Your task to perform on an android device: turn off priority inbox in the gmail app Image 0: 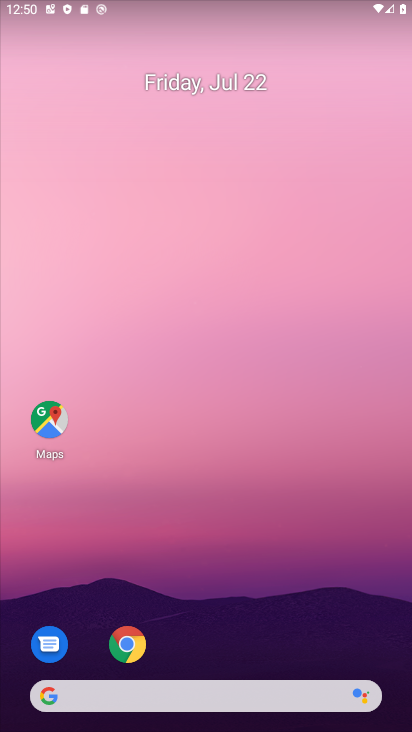
Step 0: press home button
Your task to perform on an android device: turn off priority inbox in the gmail app Image 1: 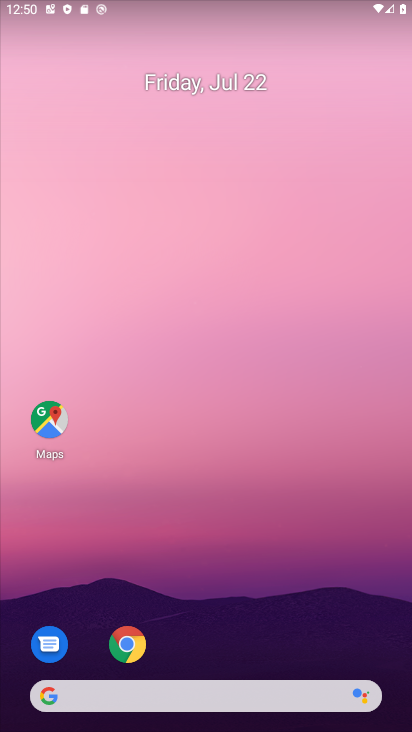
Step 1: drag from (217, 658) to (255, 153)
Your task to perform on an android device: turn off priority inbox in the gmail app Image 2: 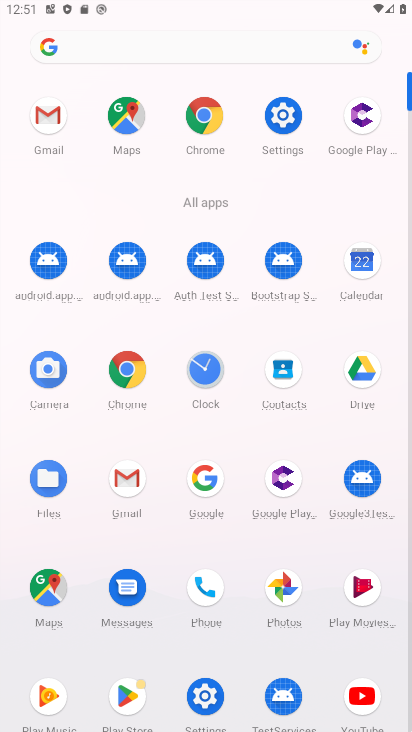
Step 2: click (122, 473)
Your task to perform on an android device: turn off priority inbox in the gmail app Image 3: 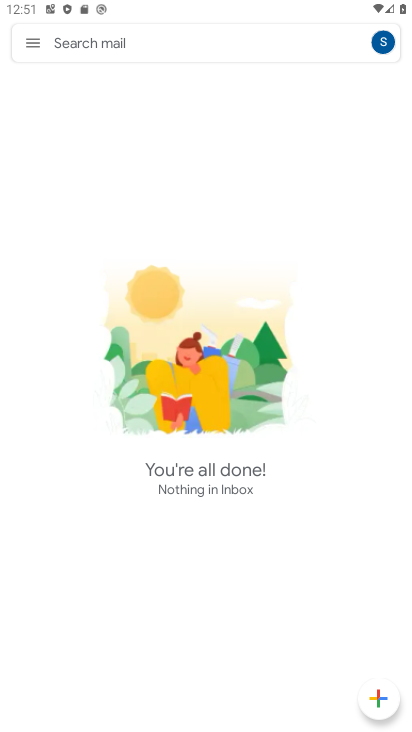
Step 3: click (30, 43)
Your task to perform on an android device: turn off priority inbox in the gmail app Image 4: 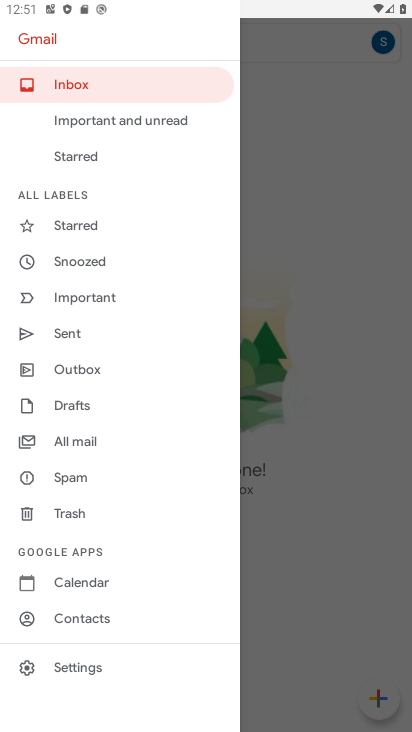
Step 4: click (95, 664)
Your task to perform on an android device: turn off priority inbox in the gmail app Image 5: 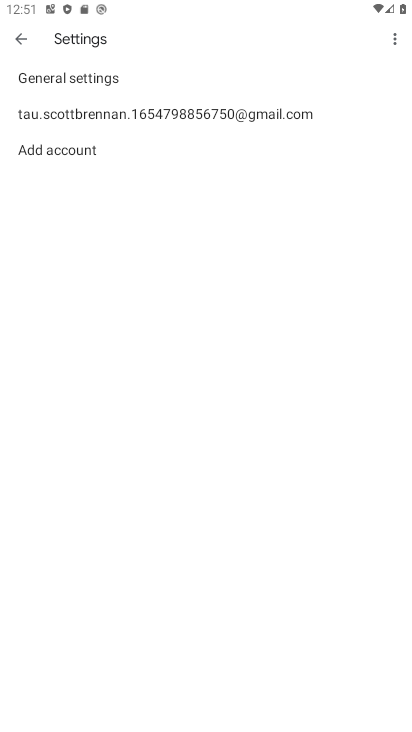
Step 5: click (126, 70)
Your task to perform on an android device: turn off priority inbox in the gmail app Image 6: 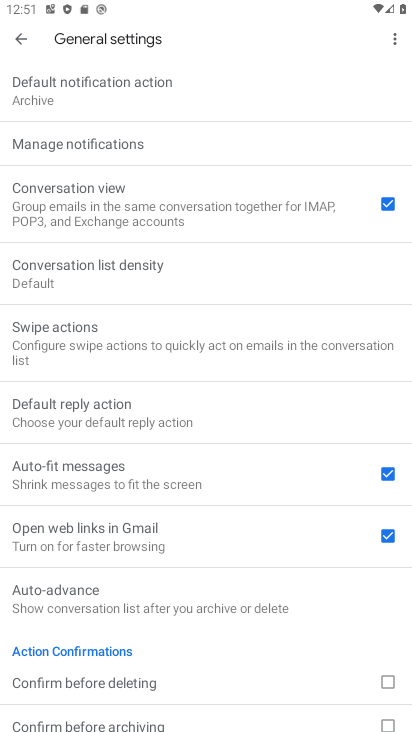
Step 6: click (19, 46)
Your task to perform on an android device: turn off priority inbox in the gmail app Image 7: 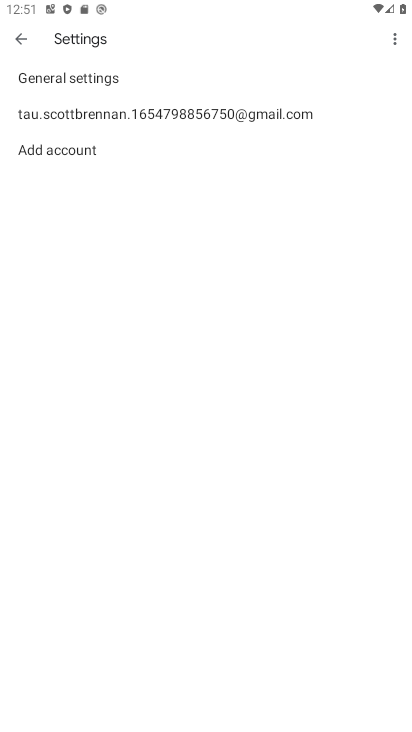
Step 7: click (169, 104)
Your task to perform on an android device: turn off priority inbox in the gmail app Image 8: 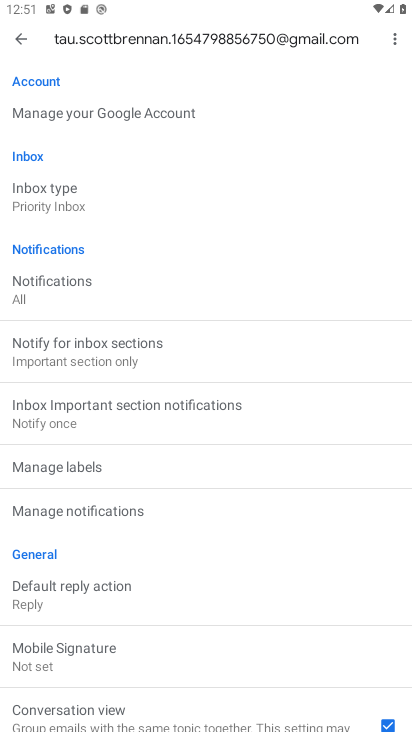
Step 8: click (103, 199)
Your task to perform on an android device: turn off priority inbox in the gmail app Image 9: 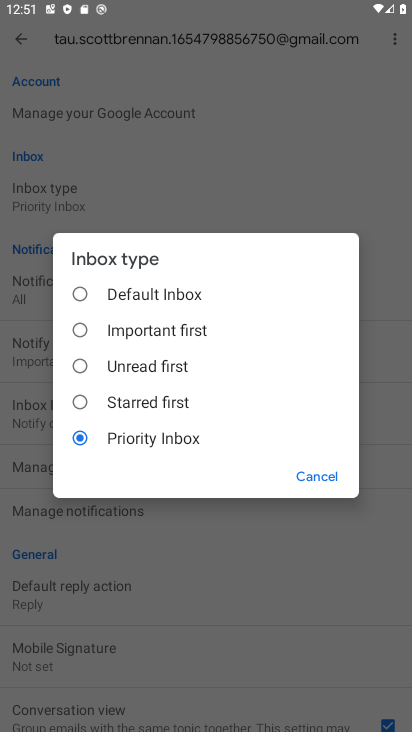
Step 9: click (78, 404)
Your task to perform on an android device: turn off priority inbox in the gmail app Image 10: 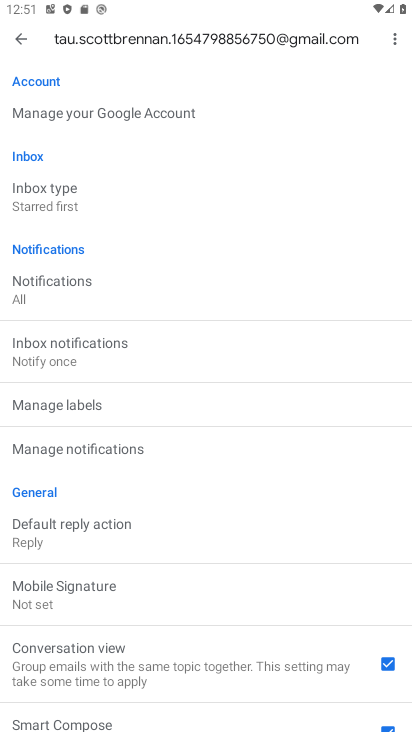
Step 10: task complete